Your task to perform on an android device: check battery use Image 0: 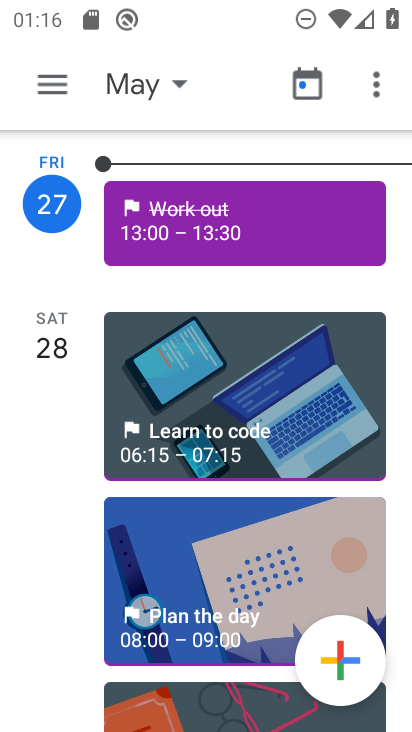
Step 0: press home button
Your task to perform on an android device: check battery use Image 1: 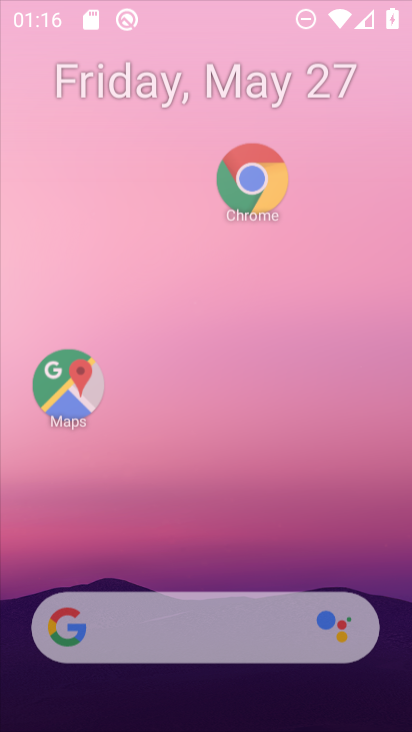
Step 1: drag from (180, 580) to (359, 65)
Your task to perform on an android device: check battery use Image 2: 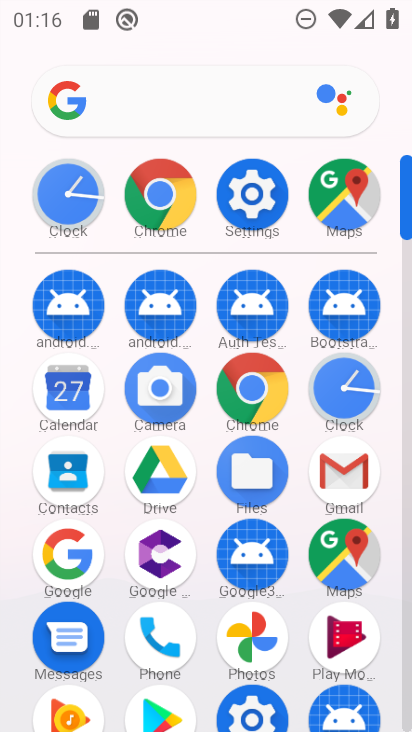
Step 2: click (235, 201)
Your task to perform on an android device: check battery use Image 3: 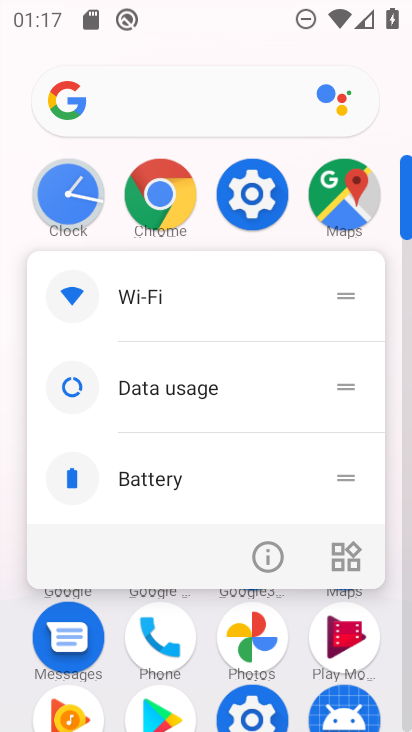
Step 3: click (163, 476)
Your task to perform on an android device: check battery use Image 4: 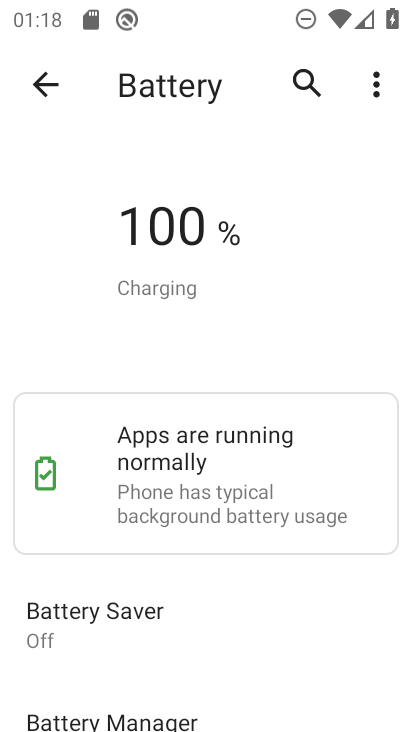
Step 4: task complete